Your task to perform on an android device: Play the last video I watched on Youtube Image 0: 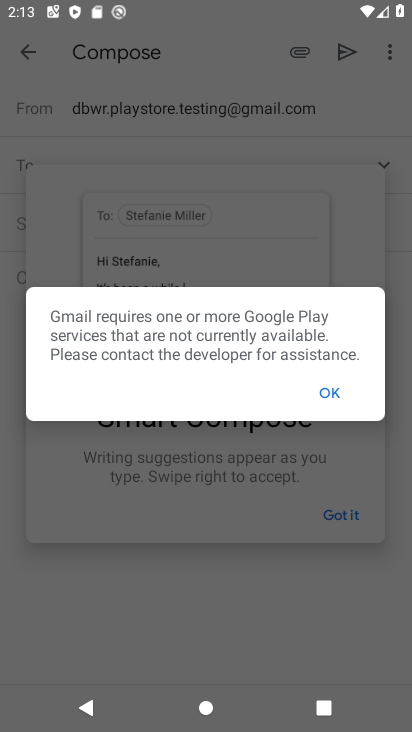
Step 0: press home button
Your task to perform on an android device: Play the last video I watched on Youtube Image 1: 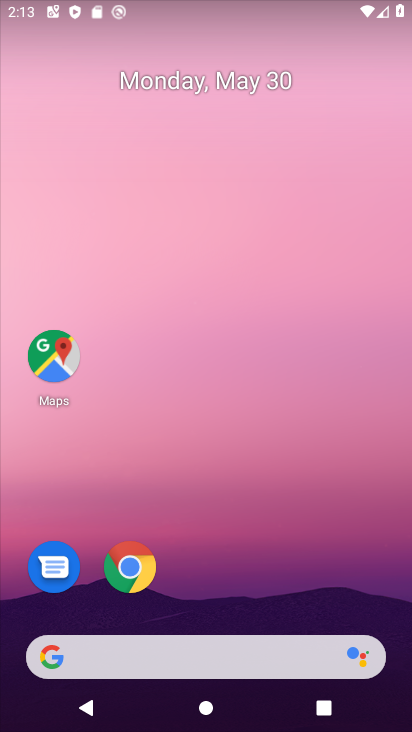
Step 1: drag from (231, 598) to (290, 119)
Your task to perform on an android device: Play the last video I watched on Youtube Image 2: 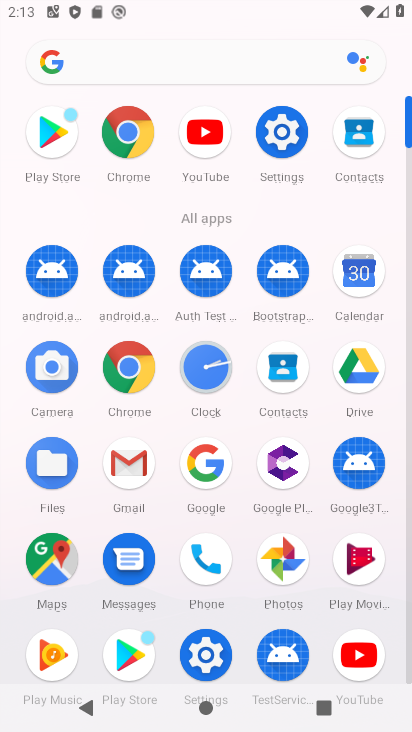
Step 2: drag from (246, 578) to (252, 147)
Your task to perform on an android device: Play the last video I watched on Youtube Image 3: 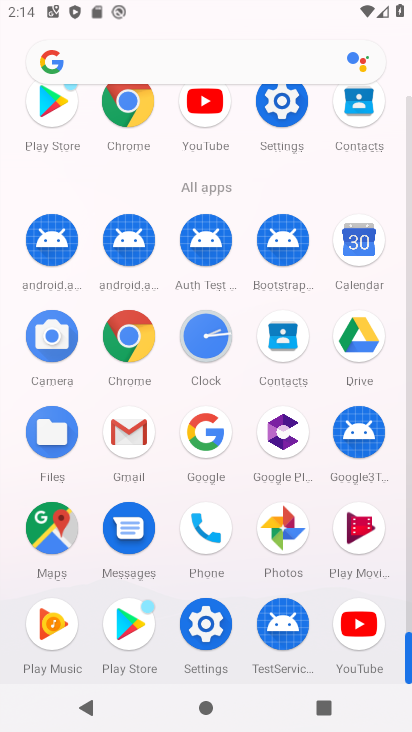
Step 3: click (361, 636)
Your task to perform on an android device: Play the last video I watched on Youtube Image 4: 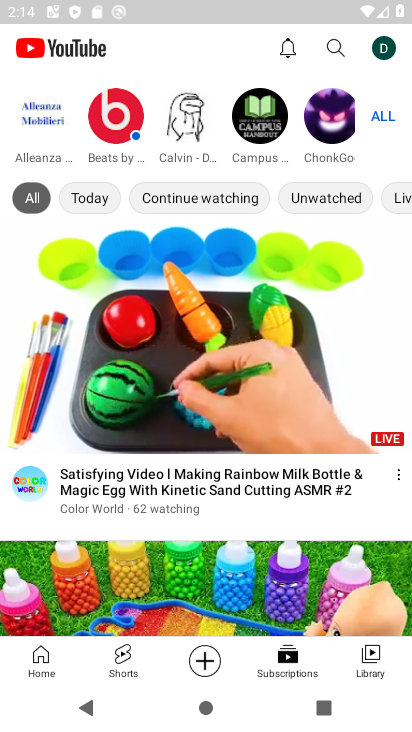
Step 4: click (364, 664)
Your task to perform on an android device: Play the last video I watched on Youtube Image 5: 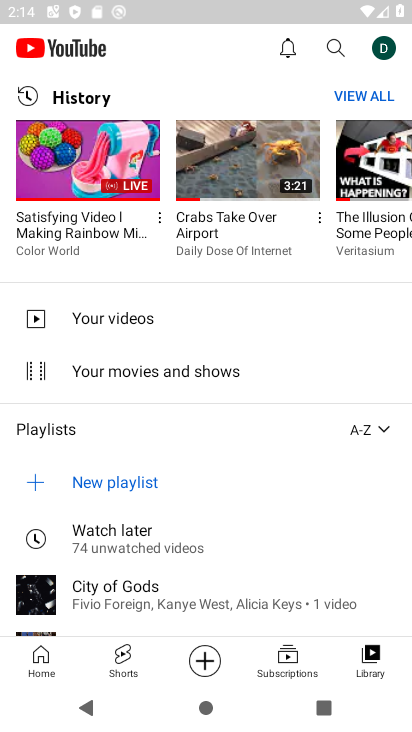
Step 5: click (90, 164)
Your task to perform on an android device: Play the last video I watched on Youtube Image 6: 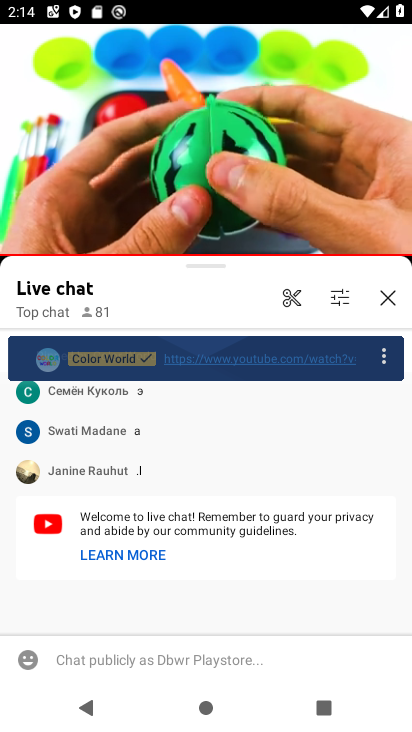
Step 6: task complete